Your task to perform on an android device: open a new tab in the chrome app Image 0: 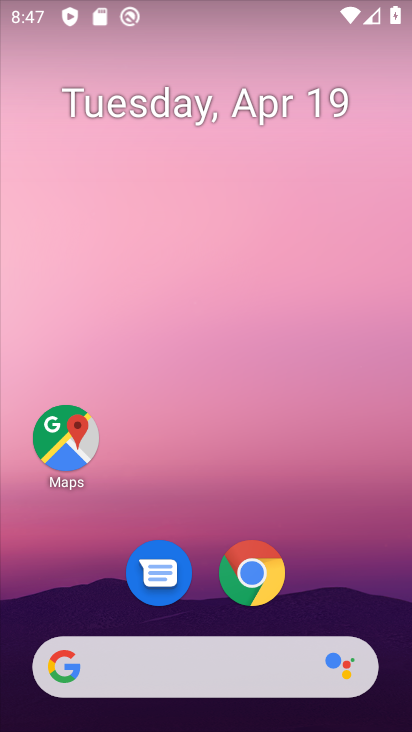
Step 0: click (257, 560)
Your task to perform on an android device: open a new tab in the chrome app Image 1: 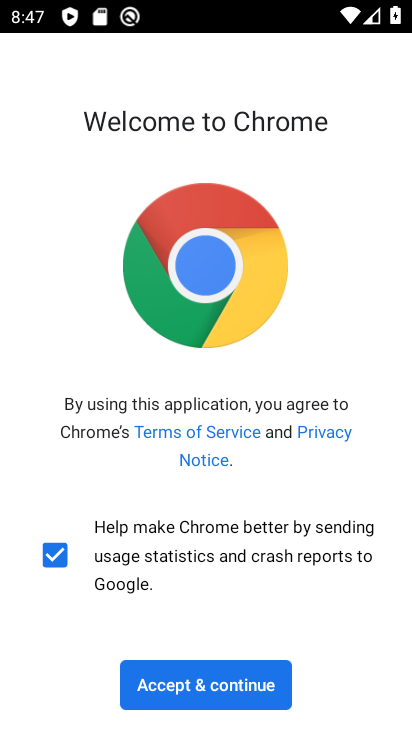
Step 1: click (185, 678)
Your task to perform on an android device: open a new tab in the chrome app Image 2: 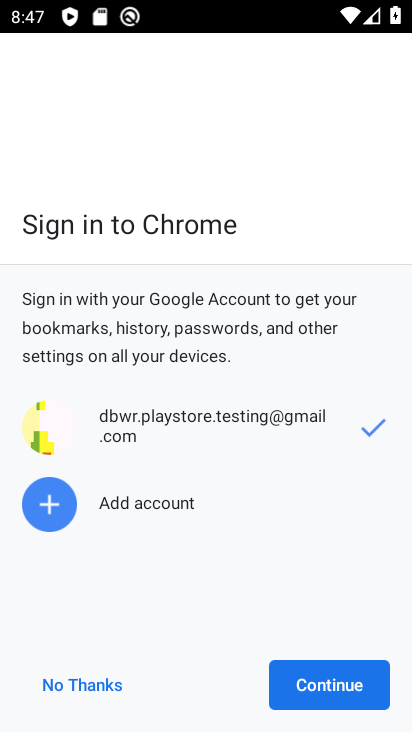
Step 2: click (348, 681)
Your task to perform on an android device: open a new tab in the chrome app Image 3: 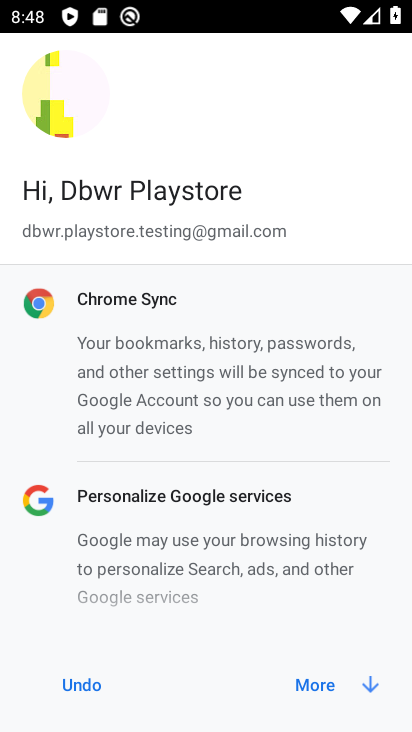
Step 3: click (348, 681)
Your task to perform on an android device: open a new tab in the chrome app Image 4: 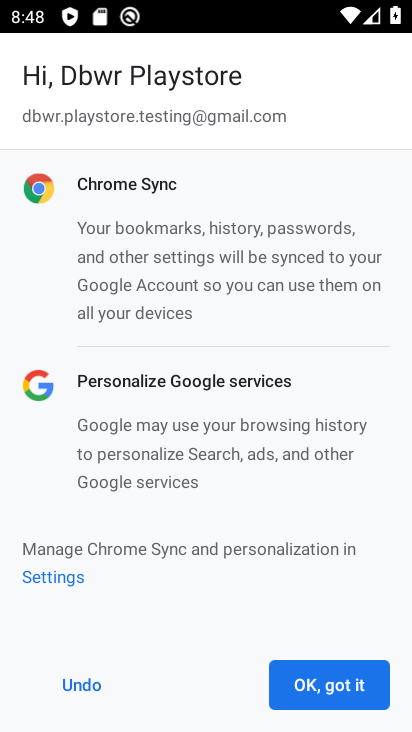
Step 4: click (326, 682)
Your task to perform on an android device: open a new tab in the chrome app Image 5: 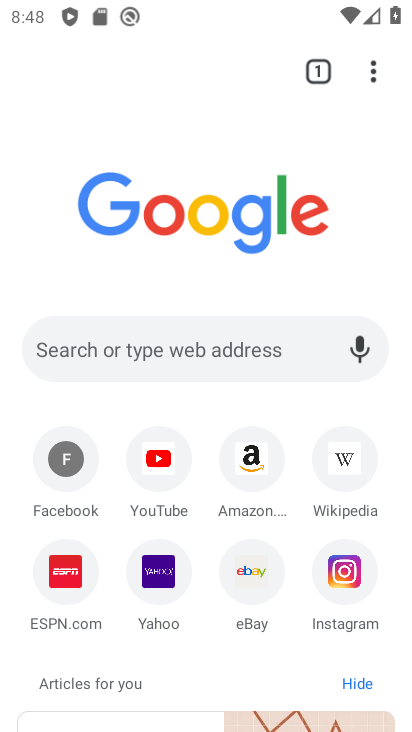
Step 5: click (373, 72)
Your task to perform on an android device: open a new tab in the chrome app Image 6: 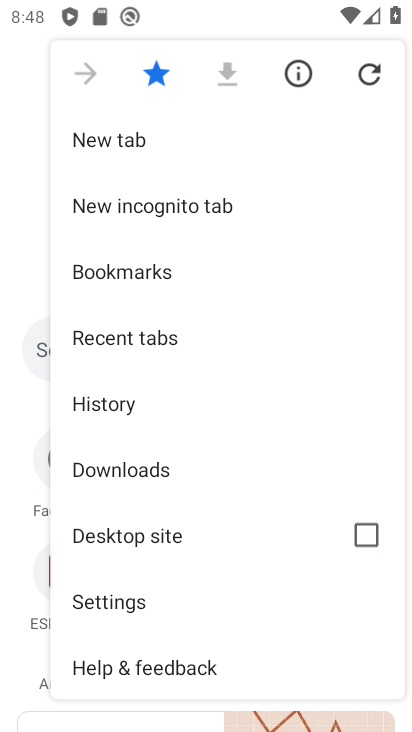
Step 6: click (125, 136)
Your task to perform on an android device: open a new tab in the chrome app Image 7: 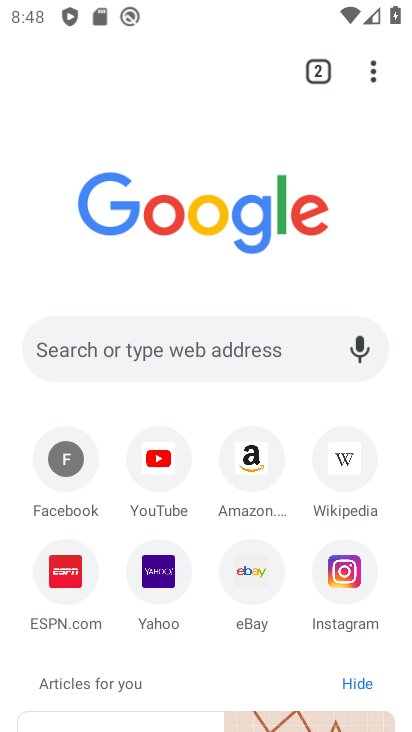
Step 7: task complete